Your task to perform on an android device: change timer sound Image 0: 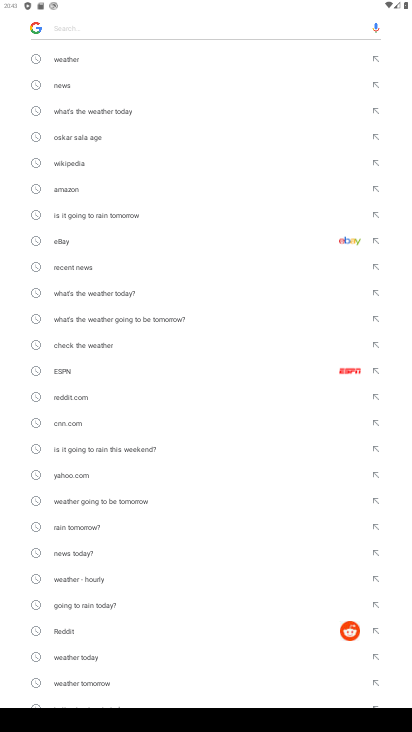
Step 0: press home button
Your task to perform on an android device: change timer sound Image 1: 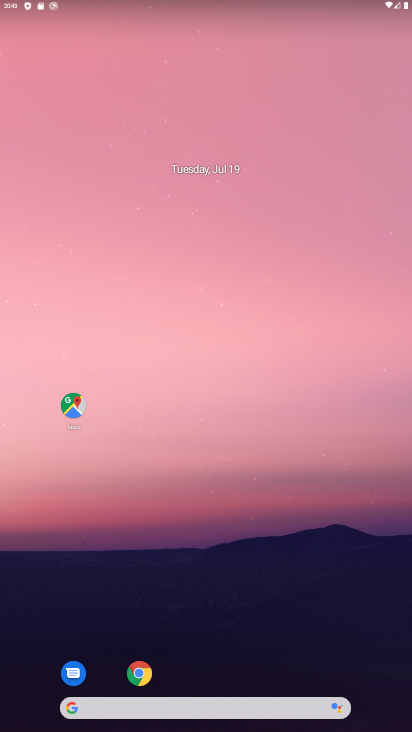
Step 1: drag from (203, 646) to (214, 35)
Your task to perform on an android device: change timer sound Image 2: 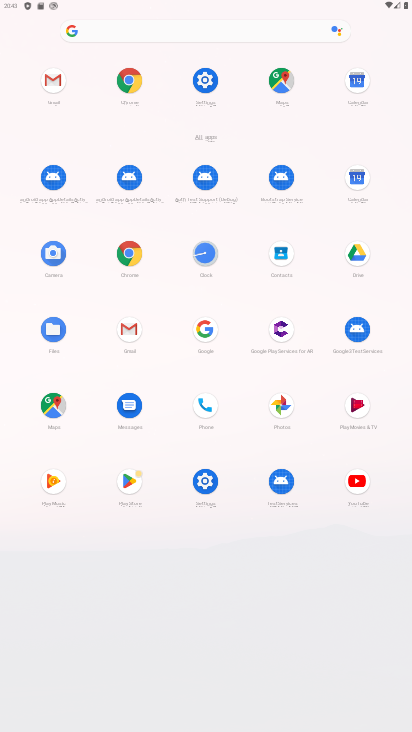
Step 2: click (213, 251)
Your task to perform on an android device: change timer sound Image 3: 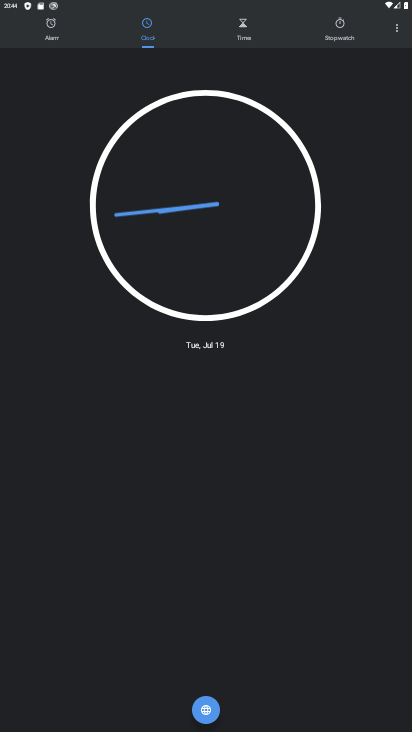
Step 3: click (396, 31)
Your task to perform on an android device: change timer sound Image 4: 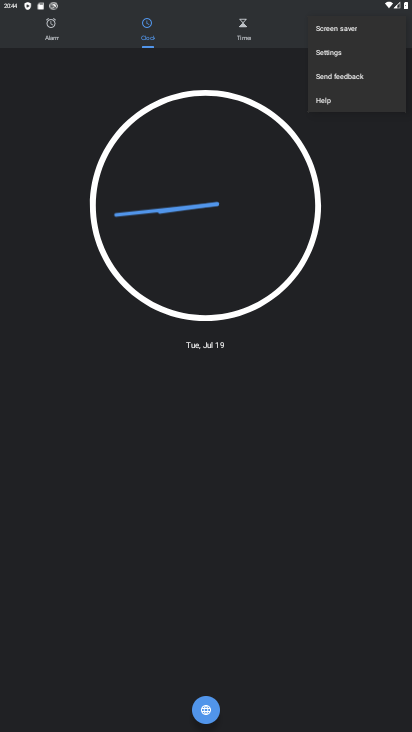
Step 4: click (336, 56)
Your task to perform on an android device: change timer sound Image 5: 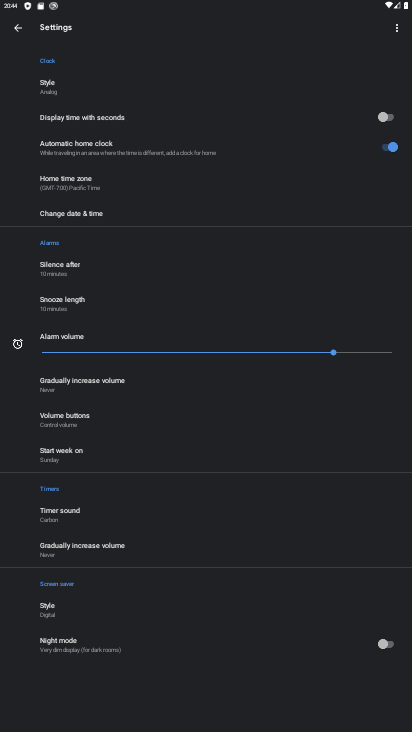
Step 5: click (78, 518)
Your task to perform on an android device: change timer sound Image 6: 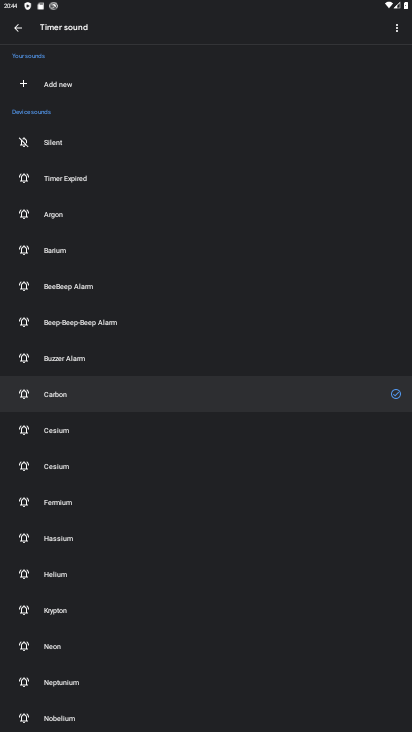
Step 6: click (75, 447)
Your task to perform on an android device: change timer sound Image 7: 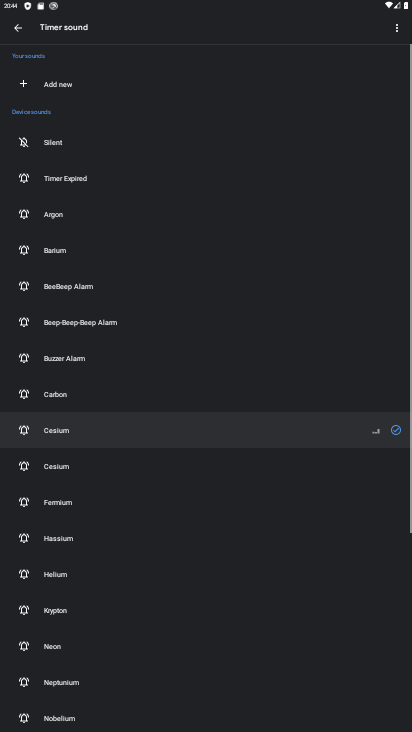
Step 7: task complete